Your task to perform on an android device: Go to accessibility settings Image 0: 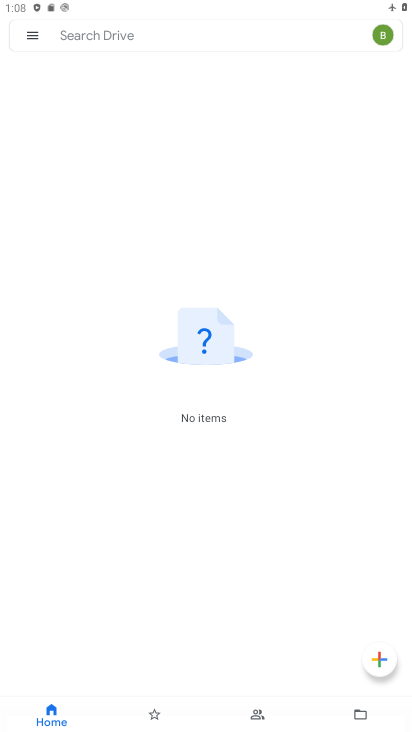
Step 0: press home button
Your task to perform on an android device: Go to accessibility settings Image 1: 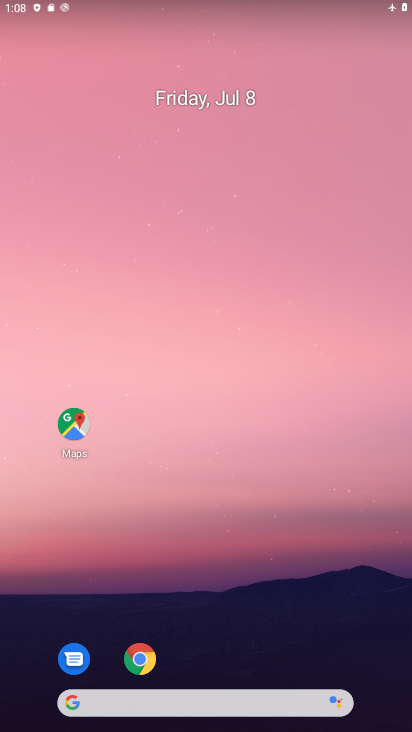
Step 1: drag from (259, 597) to (203, 0)
Your task to perform on an android device: Go to accessibility settings Image 2: 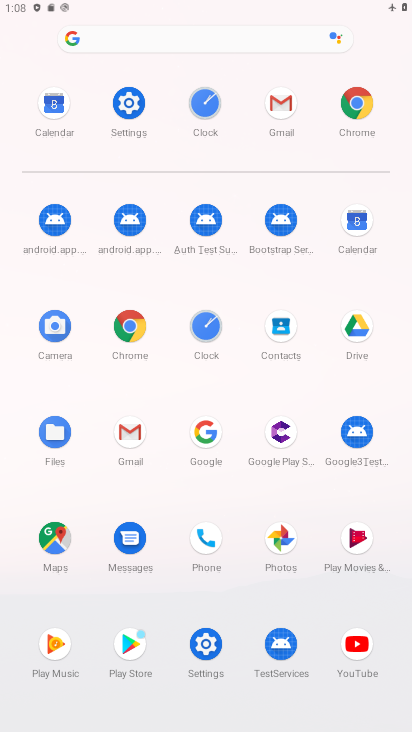
Step 2: click (217, 652)
Your task to perform on an android device: Go to accessibility settings Image 3: 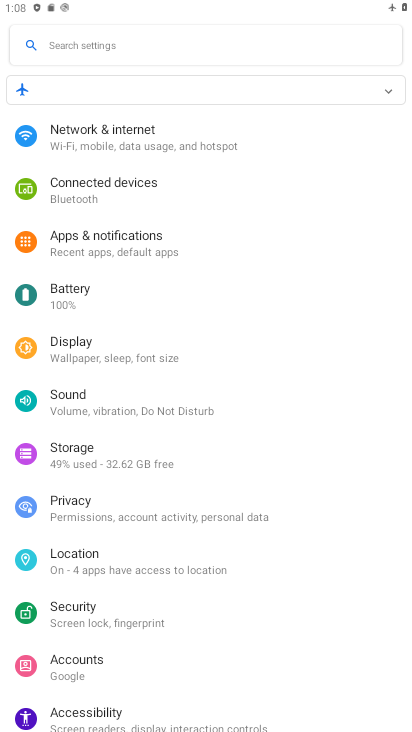
Step 3: click (149, 705)
Your task to perform on an android device: Go to accessibility settings Image 4: 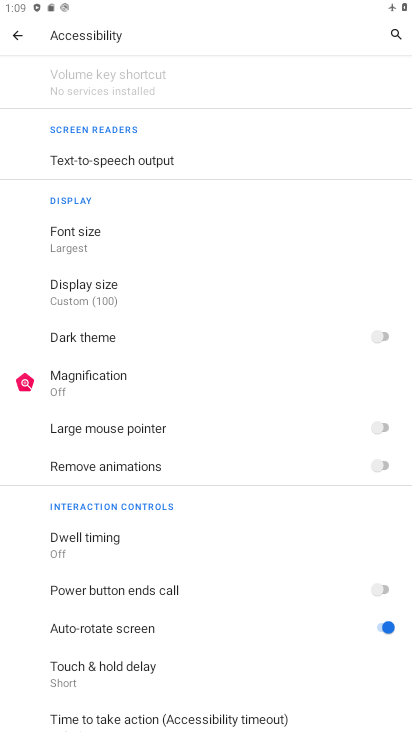
Step 4: task complete